Your task to perform on an android device: move a message to another label in the gmail app Image 0: 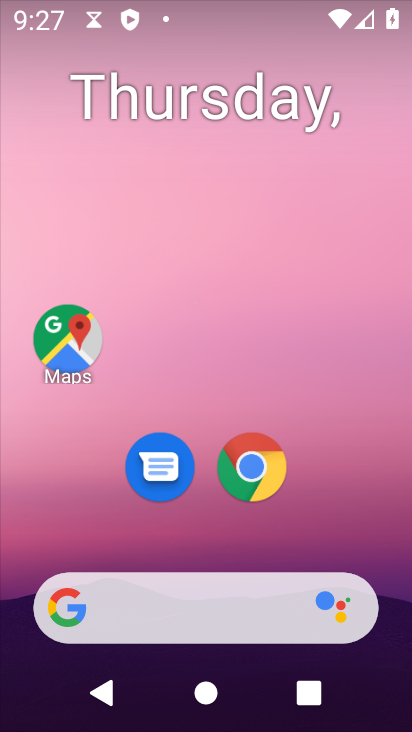
Step 0: drag from (294, 532) to (320, 34)
Your task to perform on an android device: move a message to another label in the gmail app Image 1: 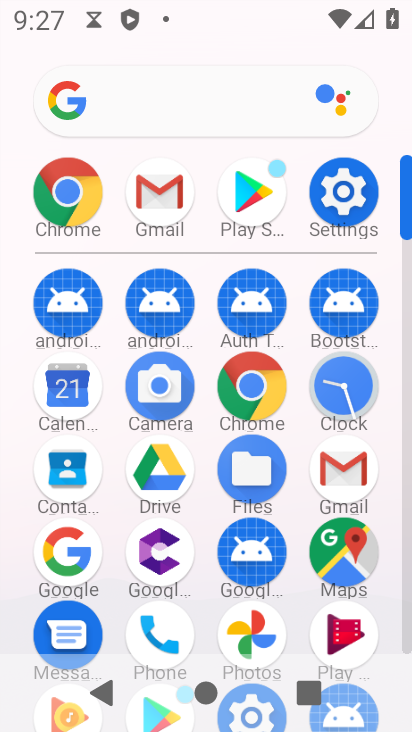
Step 1: click (159, 192)
Your task to perform on an android device: move a message to another label in the gmail app Image 2: 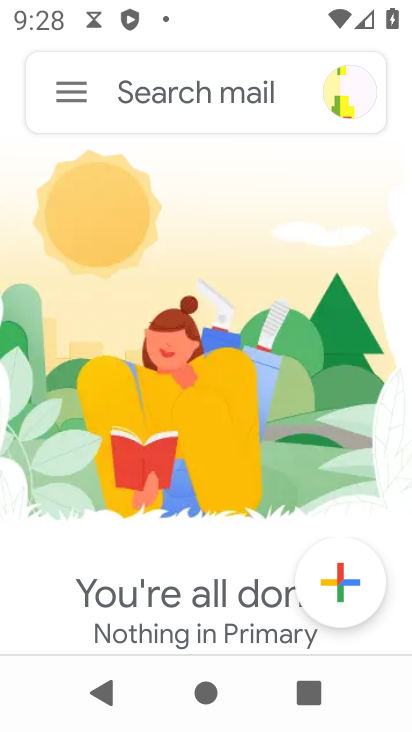
Step 2: click (66, 92)
Your task to perform on an android device: move a message to another label in the gmail app Image 3: 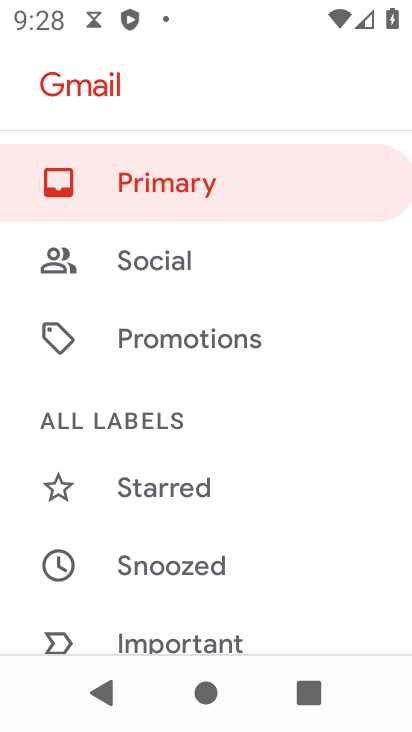
Step 3: drag from (129, 433) to (125, 316)
Your task to perform on an android device: move a message to another label in the gmail app Image 4: 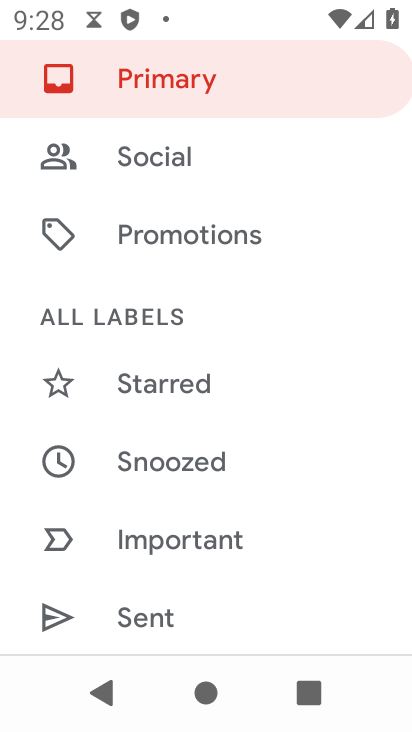
Step 4: drag from (112, 520) to (118, 426)
Your task to perform on an android device: move a message to another label in the gmail app Image 5: 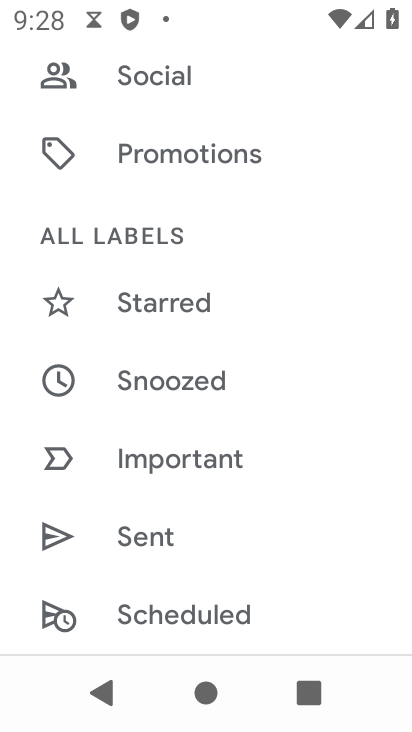
Step 5: drag from (96, 558) to (102, 470)
Your task to perform on an android device: move a message to another label in the gmail app Image 6: 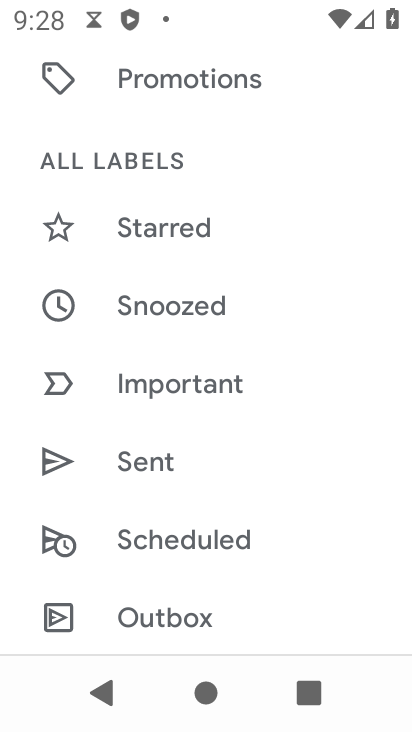
Step 6: drag from (121, 561) to (159, 443)
Your task to perform on an android device: move a message to another label in the gmail app Image 7: 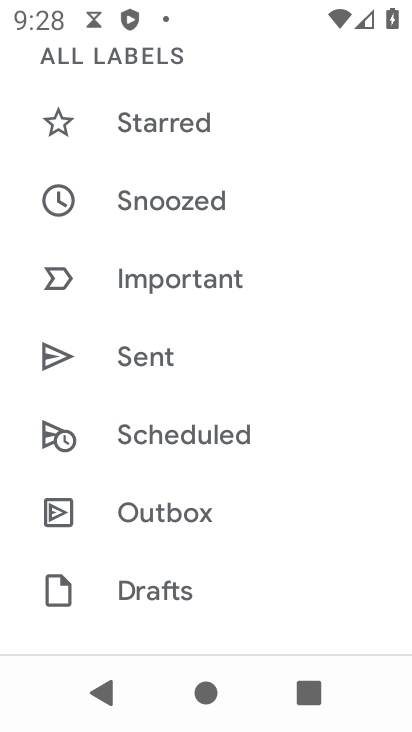
Step 7: drag from (153, 533) to (177, 440)
Your task to perform on an android device: move a message to another label in the gmail app Image 8: 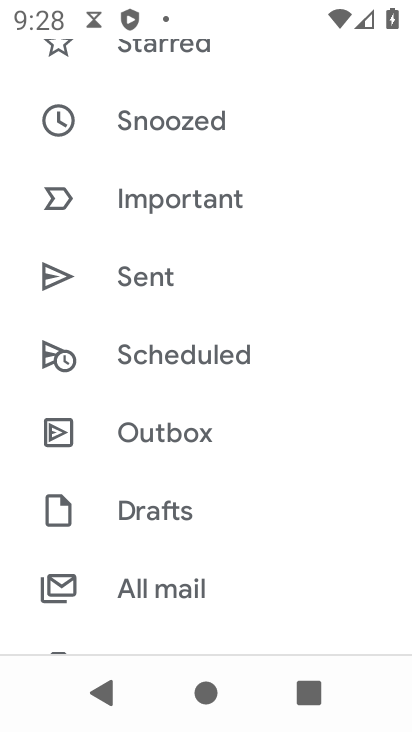
Step 8: click (167, 595)
Your task to perform on an android device: move a message to another label in the gmail app Image 9: 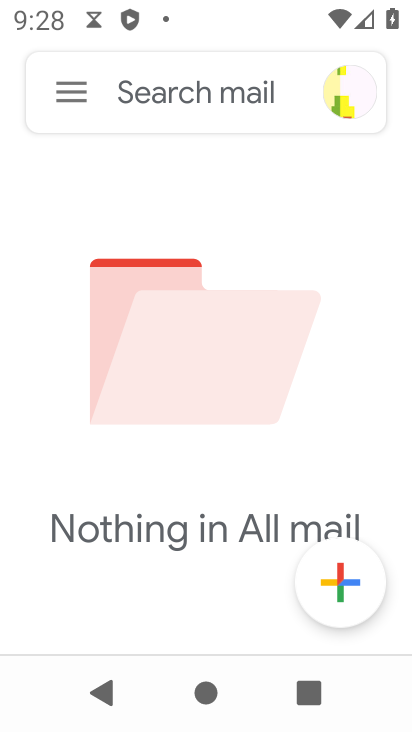
Step 9: task complete